Your task to perform on an android device: allow notifications from all sites in the chrome app Image 0: 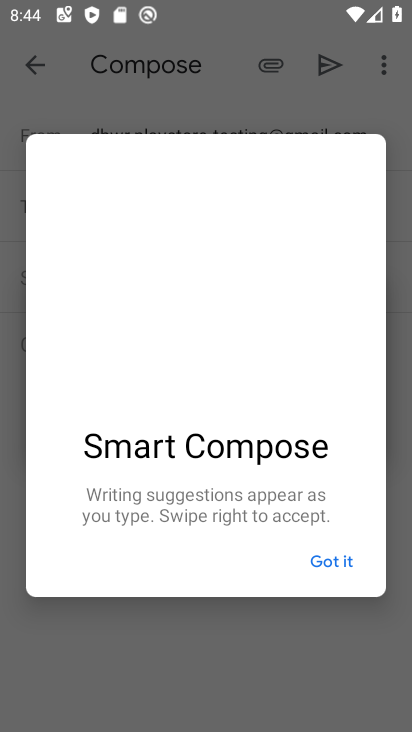
Step 0: press home button
Your task to perform on an android device: allow notifications from all sites in the chrome app Image 1: 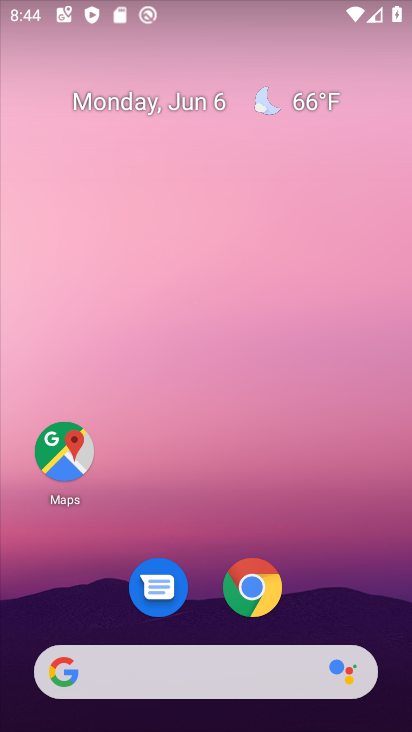
Step 1: click (256, 594)
Your task to perform on an android device: allow notifications from all sites in the chrome app Image 2: 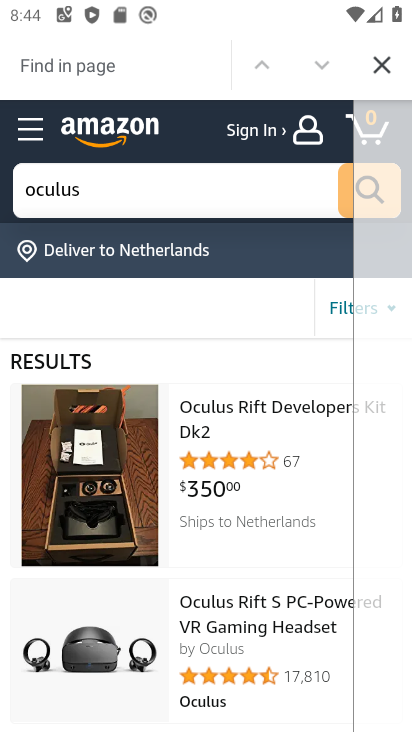
Step 2: click (390, 70)
Your task to perform on an android device: allow notifications from all sites in the chrome app Image 3: 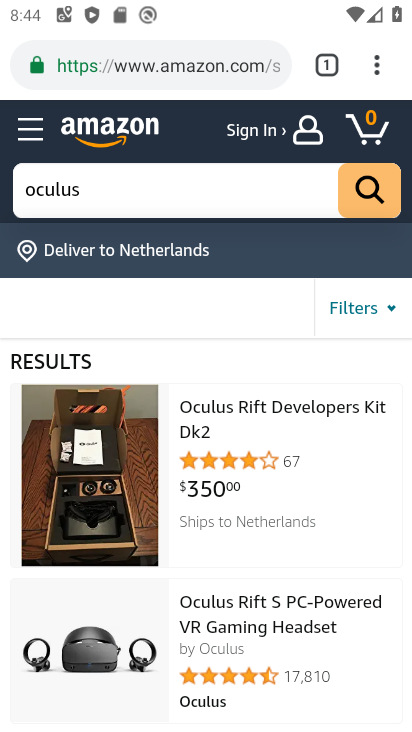
Step 3: drag from (378, 68) to (162, 631)
Your task to perform on an android device: allow notifications from all sites in the chrome app Image 4: 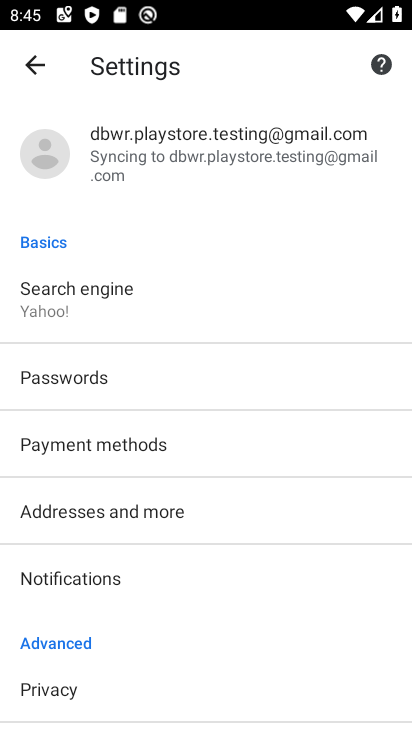
Step 4: drag from (121, 637) to (128, 286)
Your task to perform on an android device: allow notifications from all sites in the chrome app Image 5: 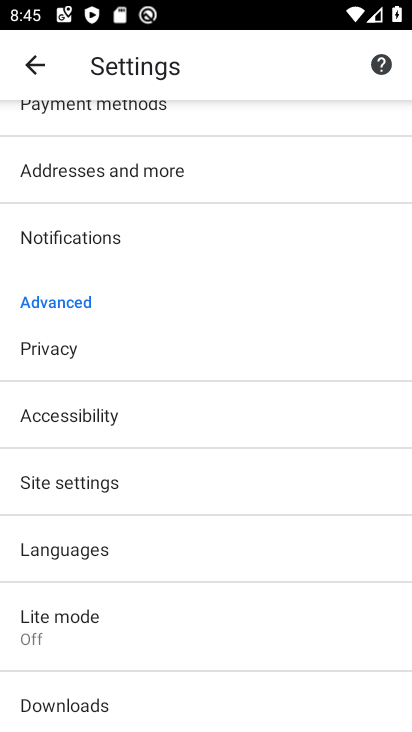
Step 5: click (91, 493)
Your task to perform on an android device: allow notifications from all sites in the chrome app Image 6: 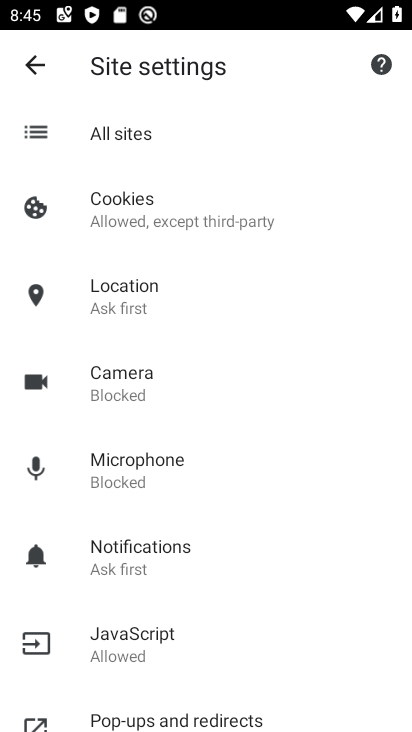
Step 6: click (151, 561)
Your task to perform on an android device: allow notifications from all sites in the chrome app Image 7: 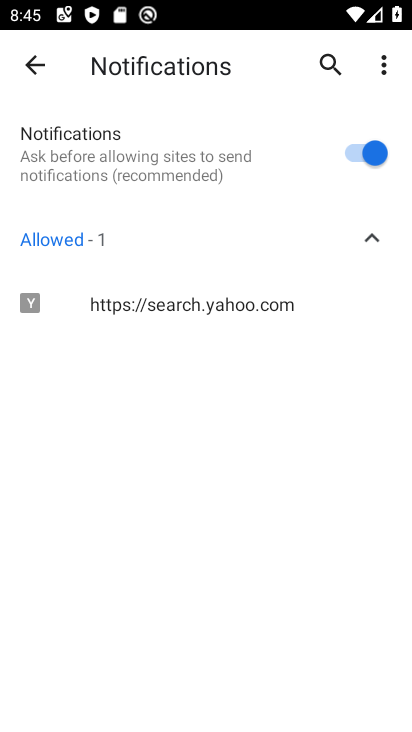
Step 7: task complete